Your task to perform on an android device: Open notification settings Image 0: 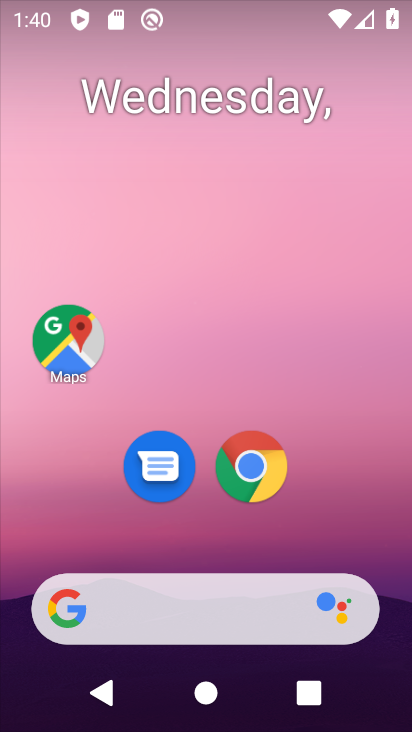
Step 0: drag from (354, 511) to (287, 33)
Your task to perform on an android device: Open notification settings Image 1: 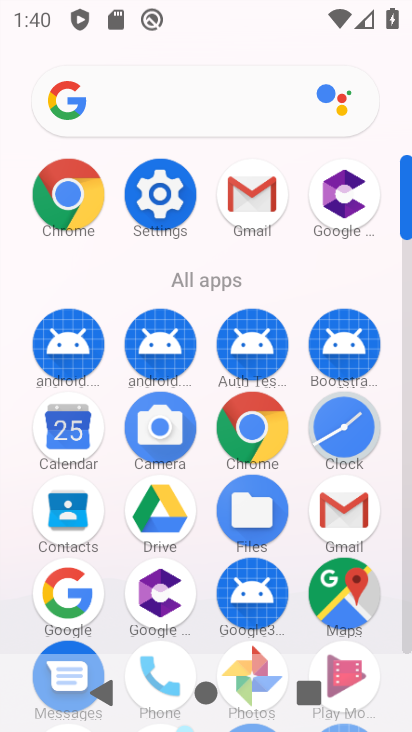
Step 1: drag from (15, 508) to (13, 215)
Your task to perform on an android device: Open notification settings Image 2: 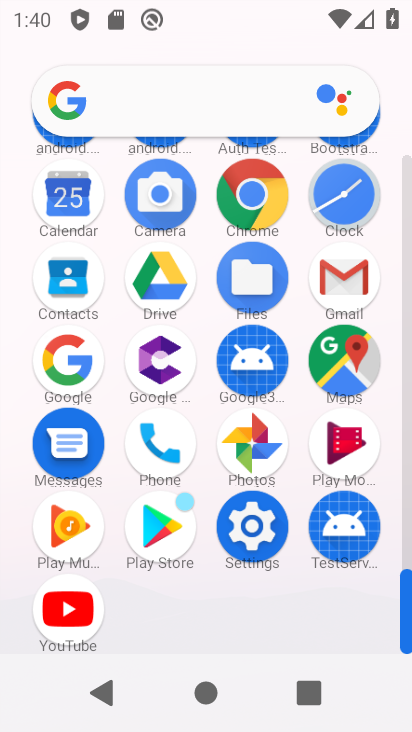
Step 2: click (251, 521)
Your task to perform on an android device: Open notification settings Image 3: 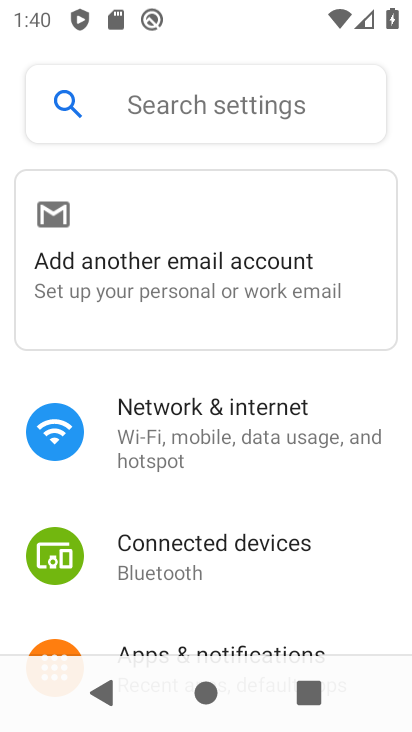
Step 3: click (206, 423)
Your task to perform on an android device: Open notification settings Image 4: 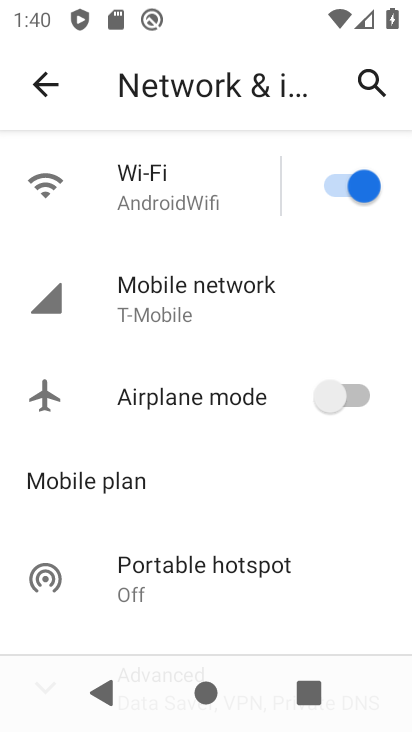
Step 4: drag from (178, 515) to (167, 199)
Your task to perform on an android device: Open notification settings Image 5: 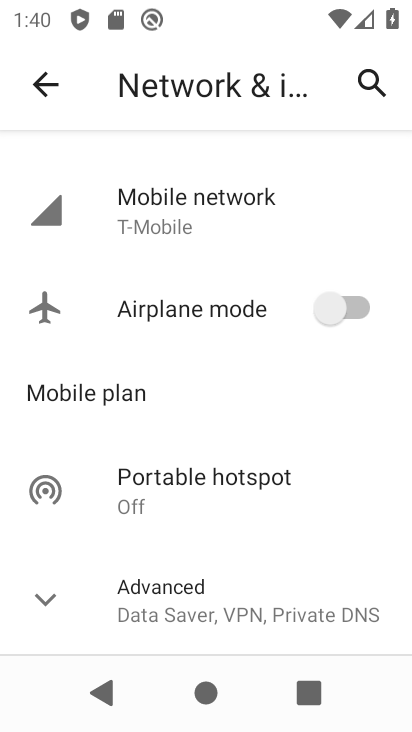
Step 5: click (63, 610)
Your task to perform on an android device: Open notification settings Image 6: 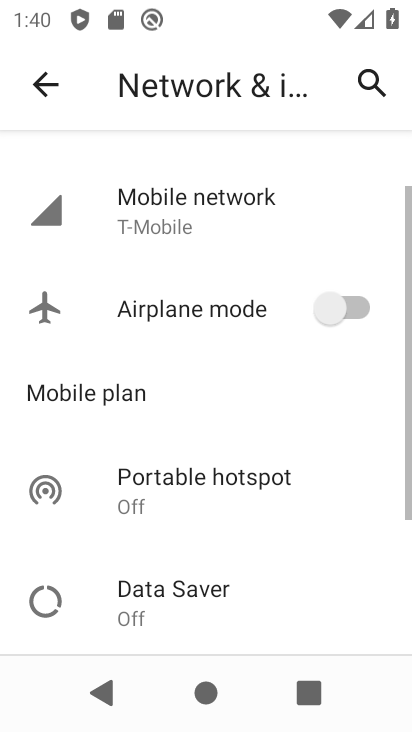
Step 6: task complete